Your task to perform on an android device: read, delete, or share a saved page in the chrome app Image 0: 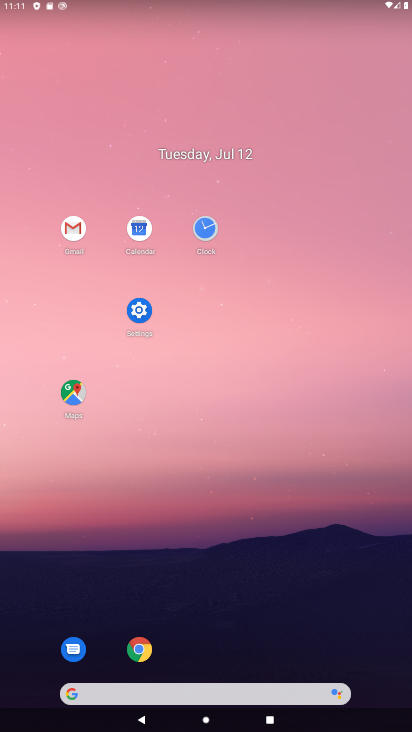
Step 0: click (140, 645)
Your task to perform on an android device: read, delete, or share a saved page in the chrome app Image 1: 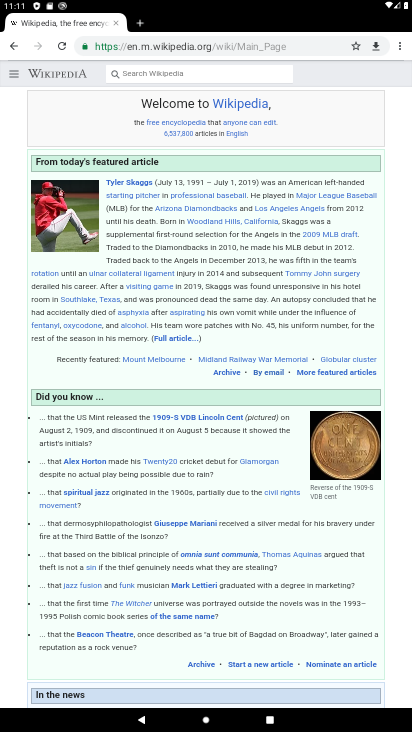
Step 1: click (390, 29)
Your task to perform on an android device: read, delete, or share a saved page in the chrome app Image 2: 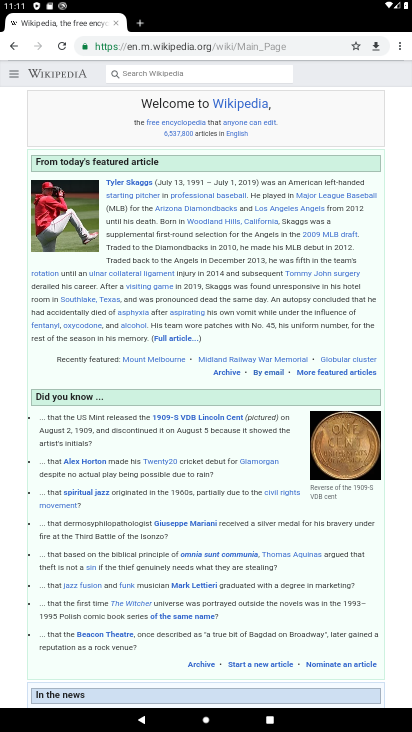
Step 2: click (400, 47)
Your task to perform on an android device: read, delete, or share a saved page in the chrome app Image 3: 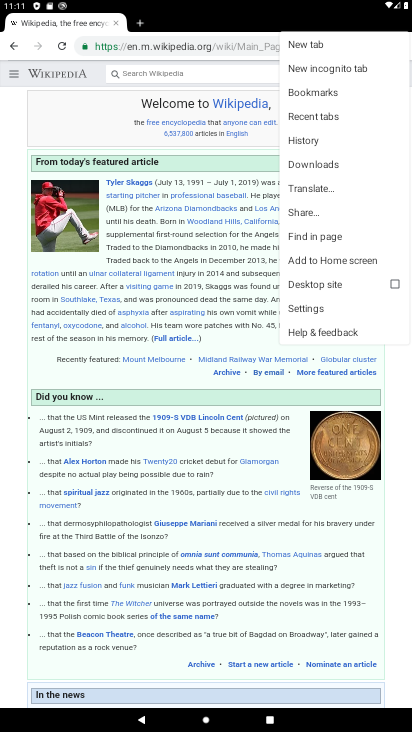
Step 3: click (328, 168)
Your task to perform on an android device: read, delete, or share a saved page in the chrome app Image 4: 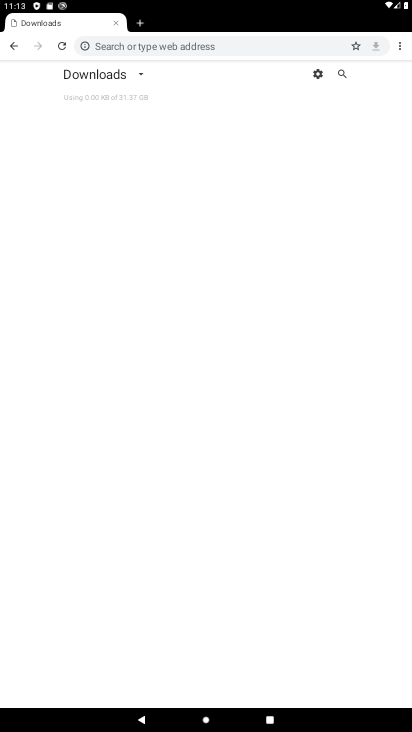
Step 4: task complete